Your task to perform on an android device: open app "Truecaller" (install if not already installed), go to login, and select forgot password Image 0: 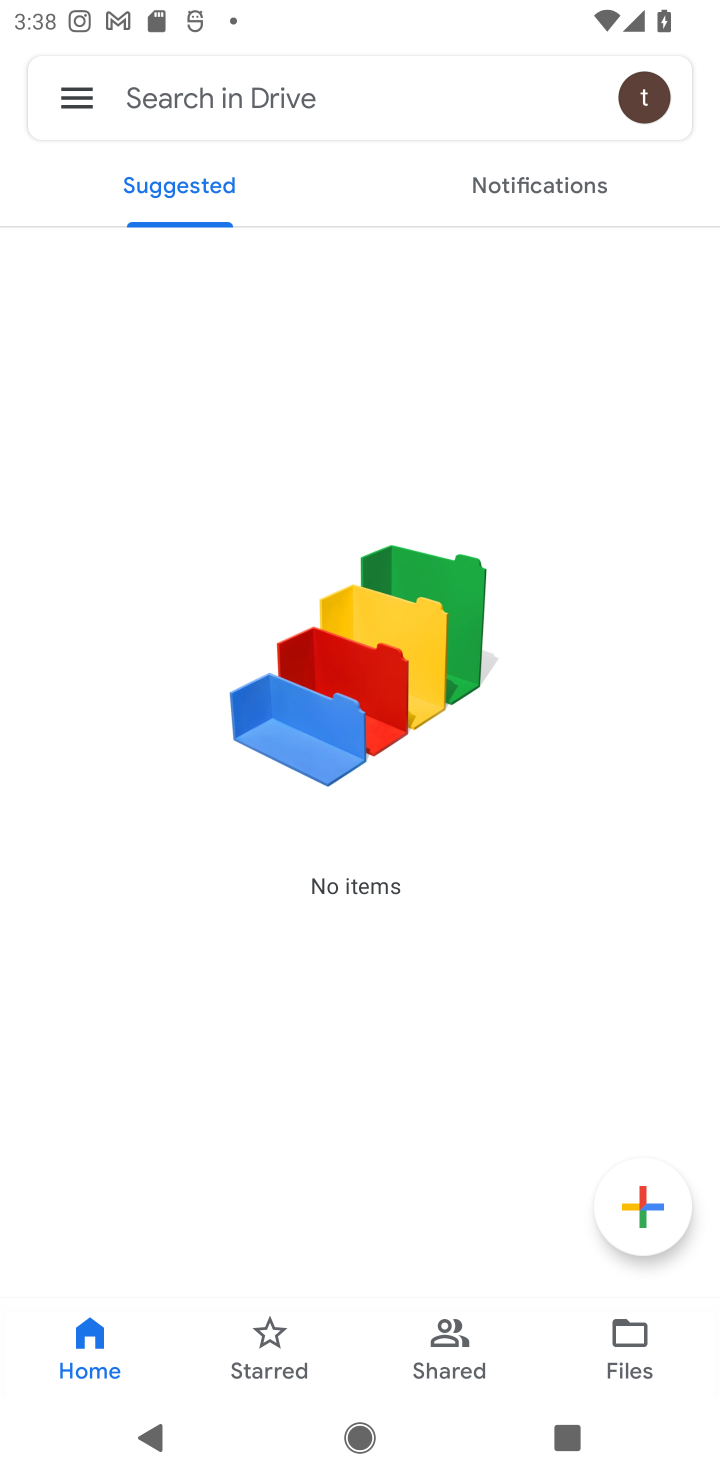
Step 0: press home button
Your task to perform on an android device: open app "Truecaller" (install if not already installed), go to login, and select forgot password Image 1: 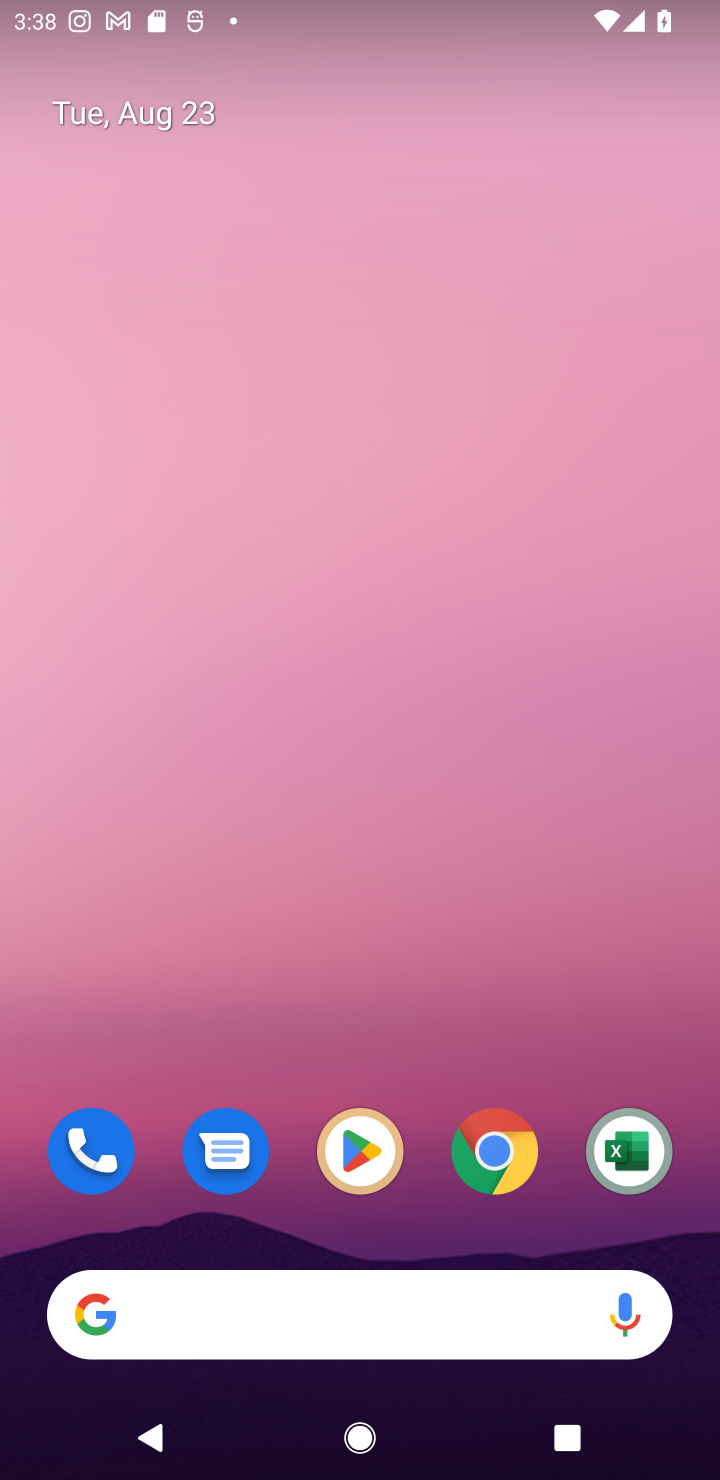
Step 1: click (346, 1141)
Your task to perform on an android device: open app "Truecaller" (install if not already installed), go to login, and select forgot password Image 2: 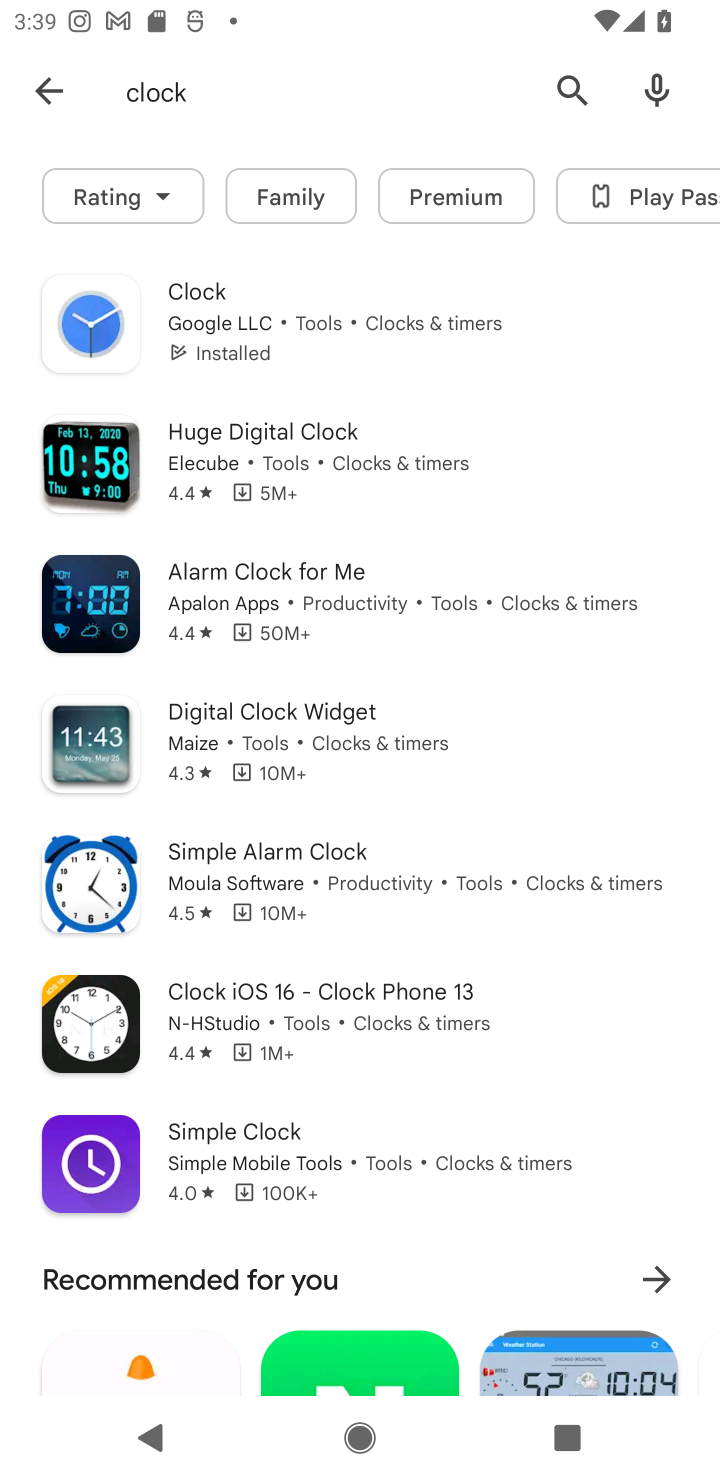
Step 2: click (559, 89)
Your task to perform on an android device: open app "Truecaller" (install if not already installed), go to login, and select forgot password Image 3: 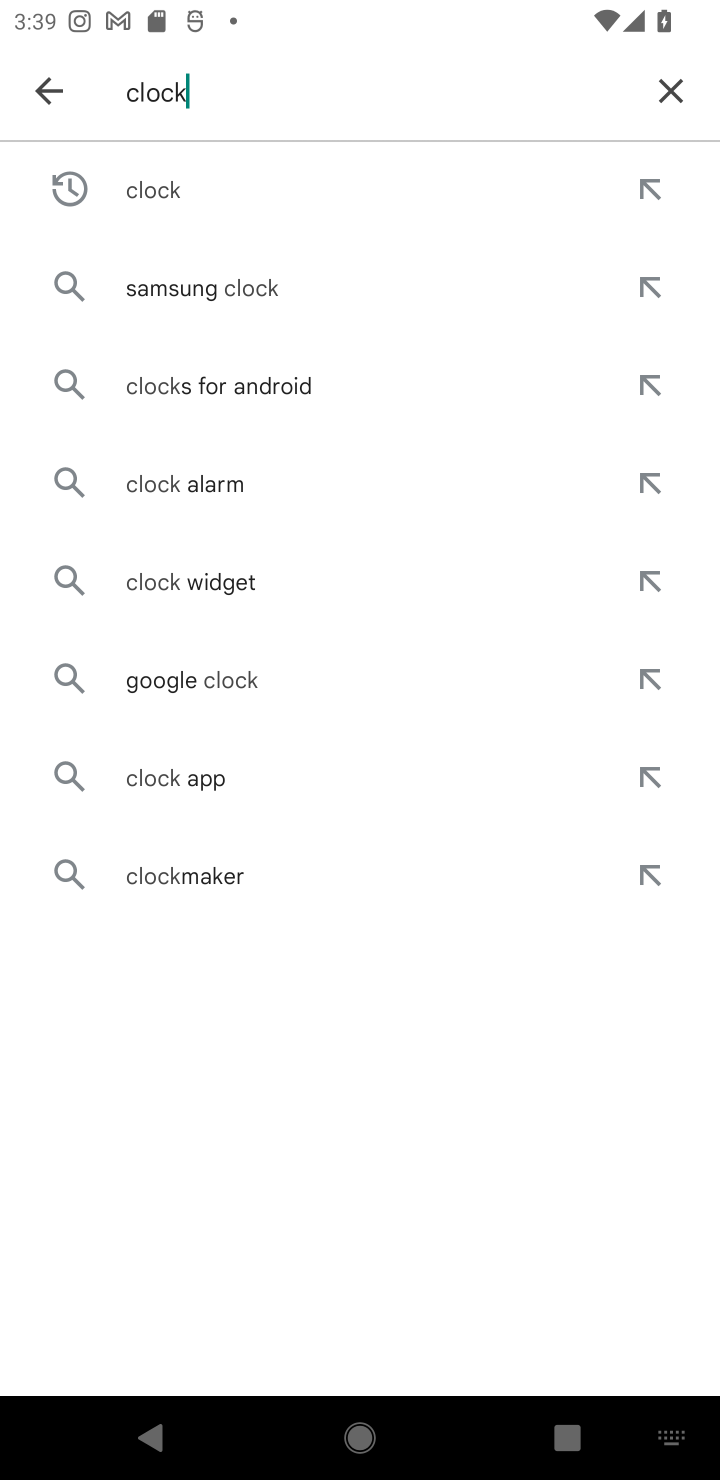
Step 3: click (663, 85)
Your task to perform on an android device: open app "Truecaller" (install if not already installed), go to login, and select forgot password Image 4: 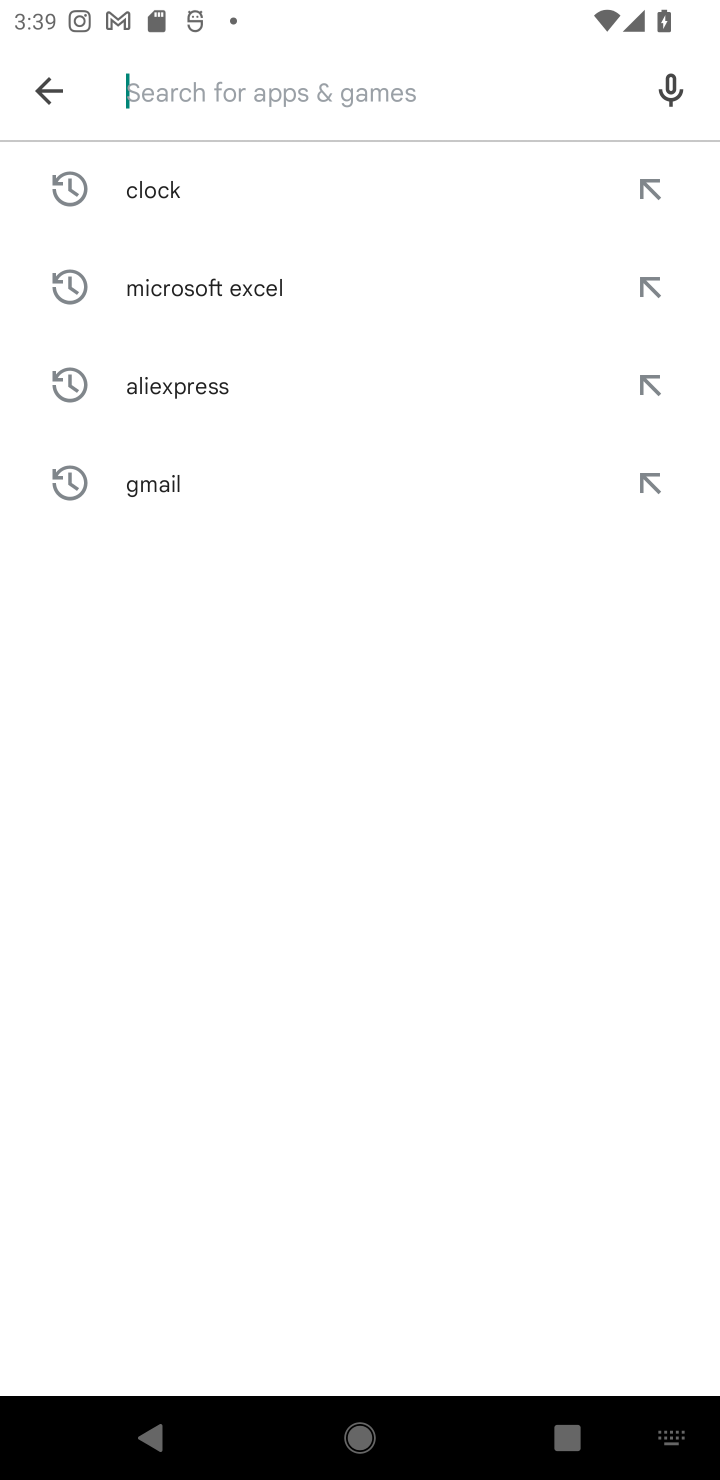
Step 4: type "Truecaller"
Your task to perform on an android device: open app "Truecaller" (install if not already installed), go to login, and select forgot password Image 5: 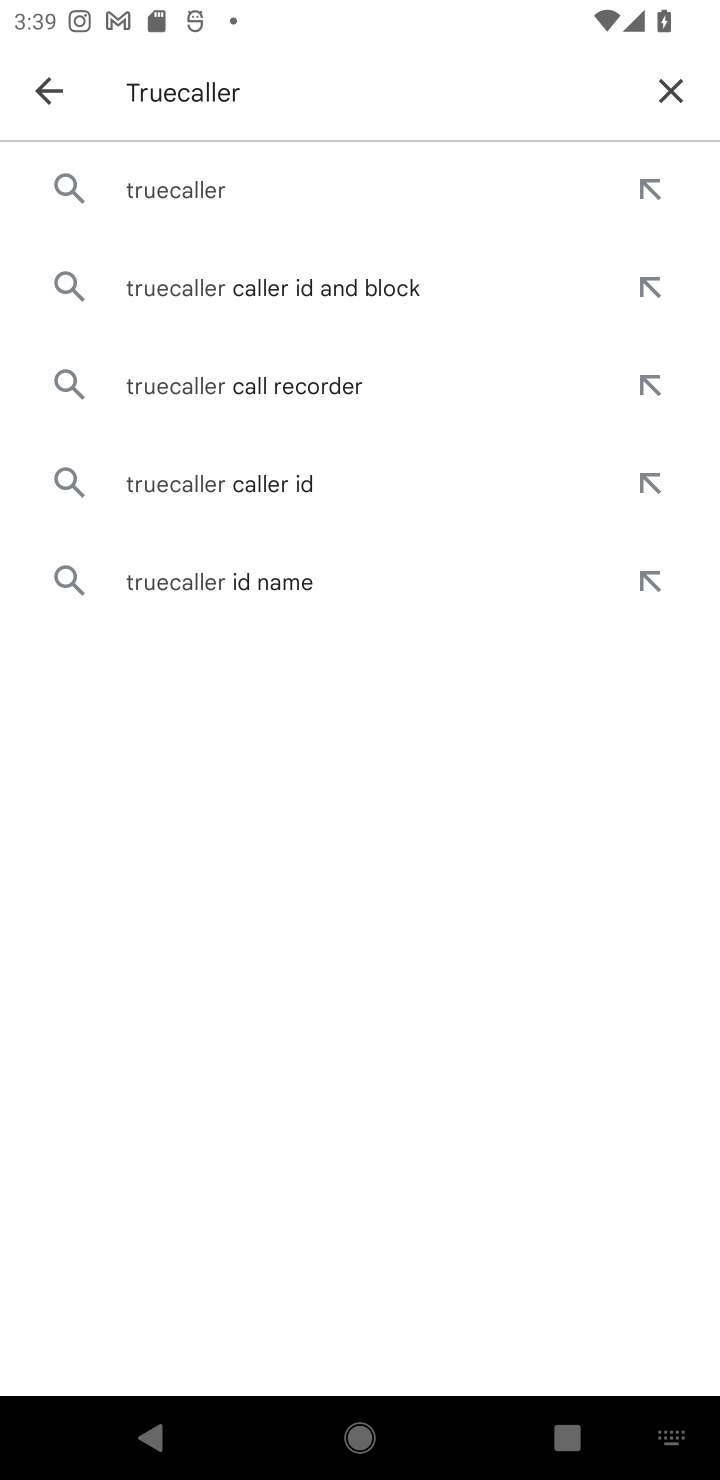
Step 5: click (153, 174)
Your task to perform on an android device: open app "Truecaller" (install if not already installed), go to login, and select forgot password Image 6: 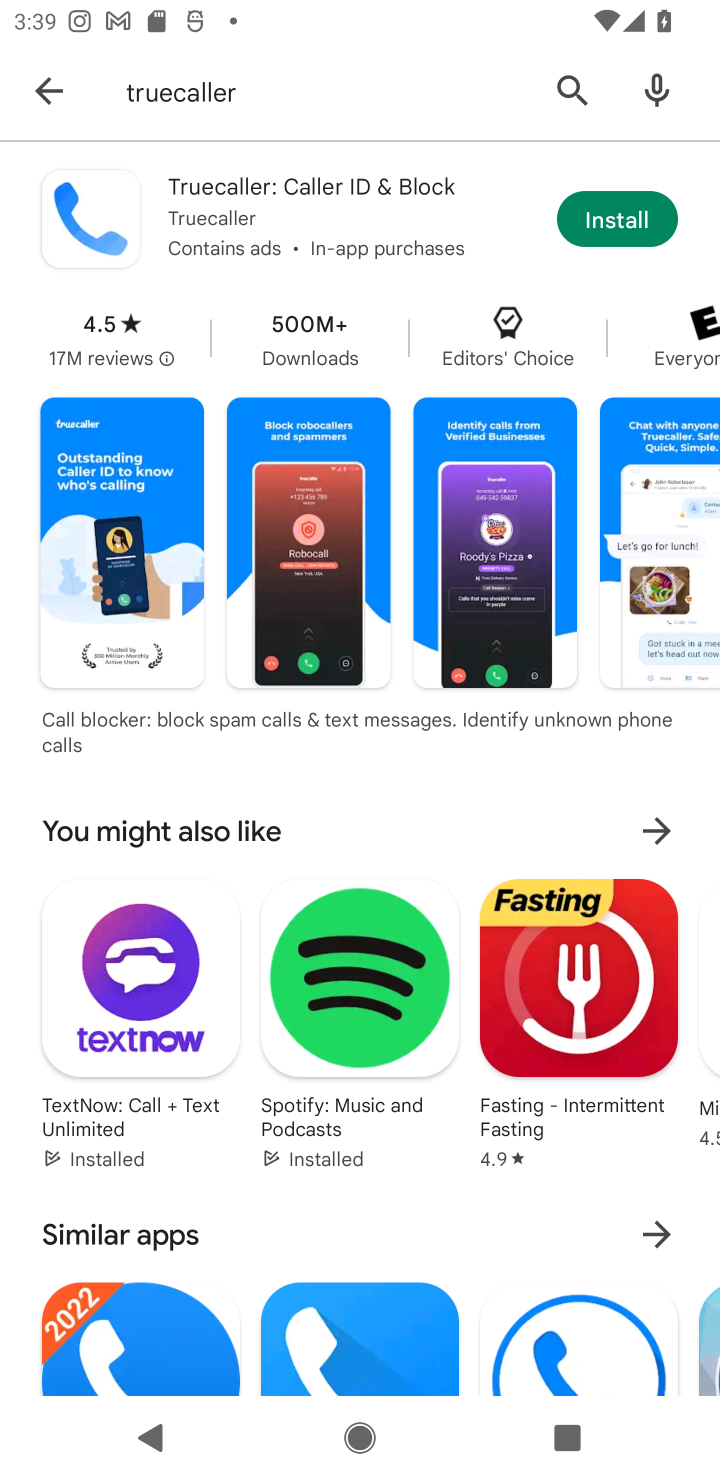
Step 6: click (631, 219)
Your task to perform on an android device: open app "Truecaller" (install if not already installed), go to login, and select forgot password Image 7: 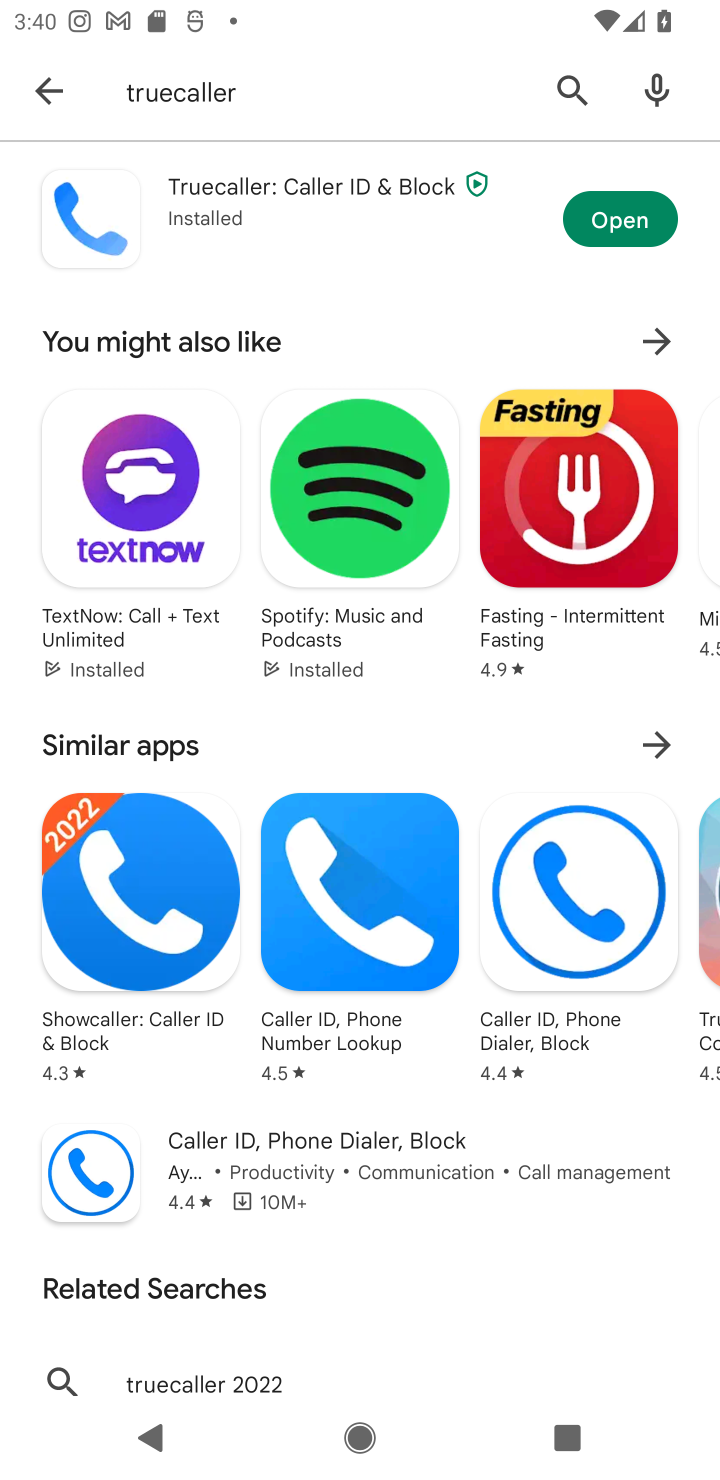
Step 7: click (621, 220)
Your task to perform on an android device: open app "Truecaller" (install if not already installed), go to login, and select forgot password Image 8: 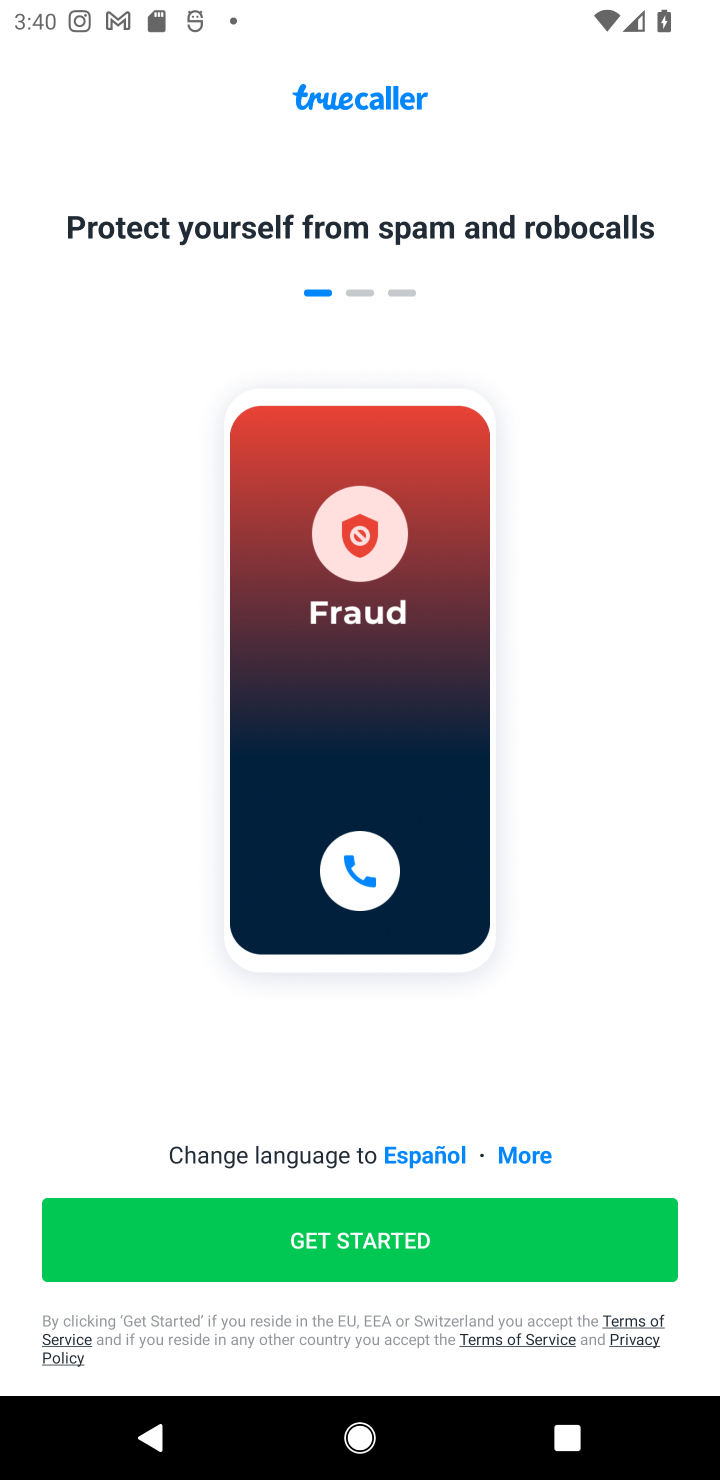
Step 8: click (469, 1244)
Your task to perform on an android device: open app "Truecaller" (install if not already installed), go to login, and select forgot password Image 9: 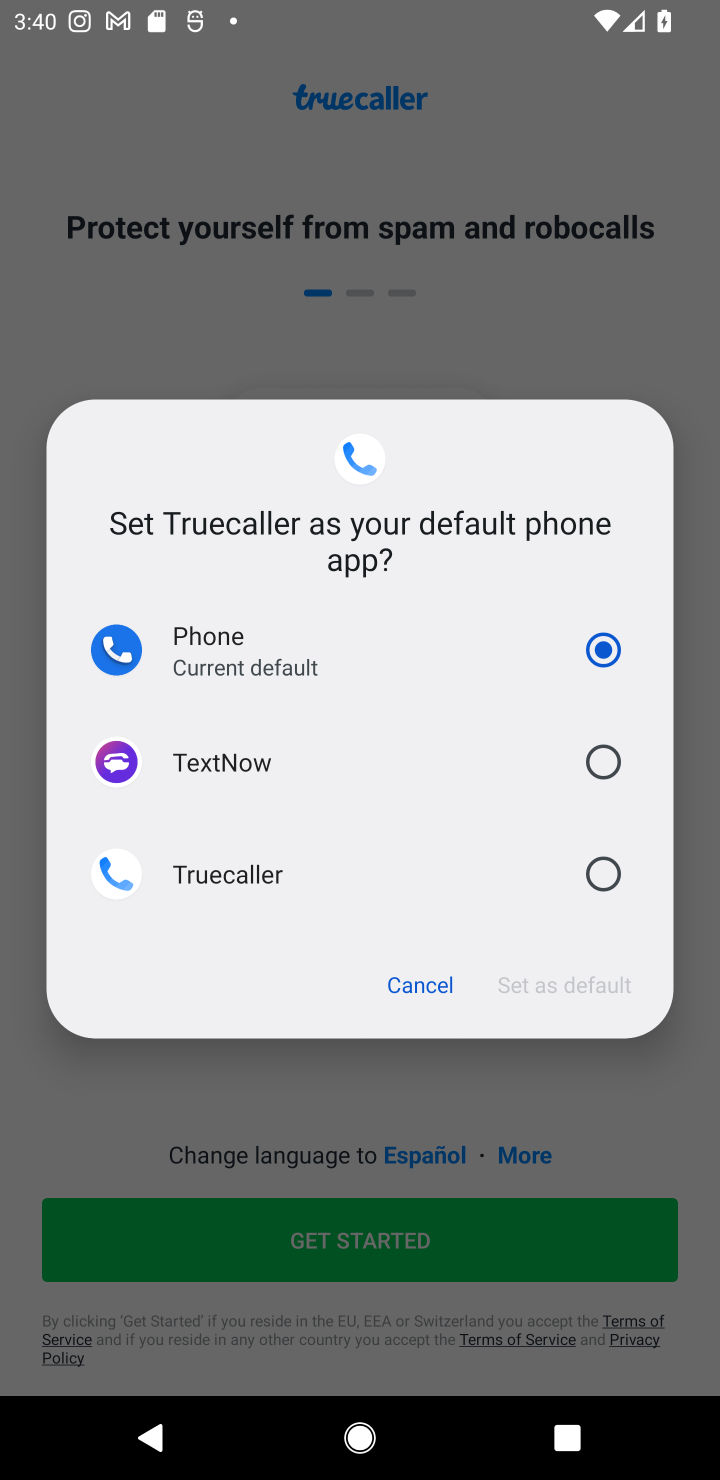
Step 9: task complete